Your task to perform on an android device: change the clock display to digital Image 0: 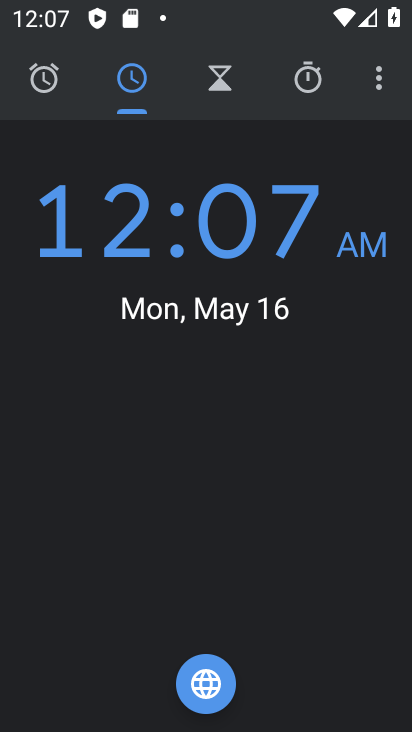
Step 0: click (376, 78)
Your task to perform on an android device: change the clock display to digital Image 1: 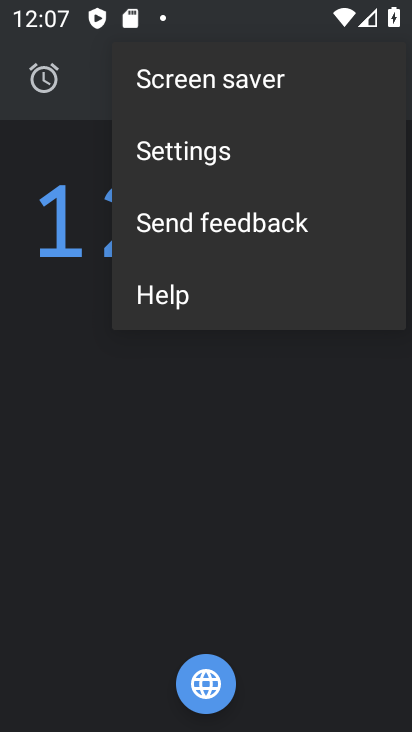
Step 1: click (253, 158)
Your task to perform on an android device: change the clock display to digital Image 2: 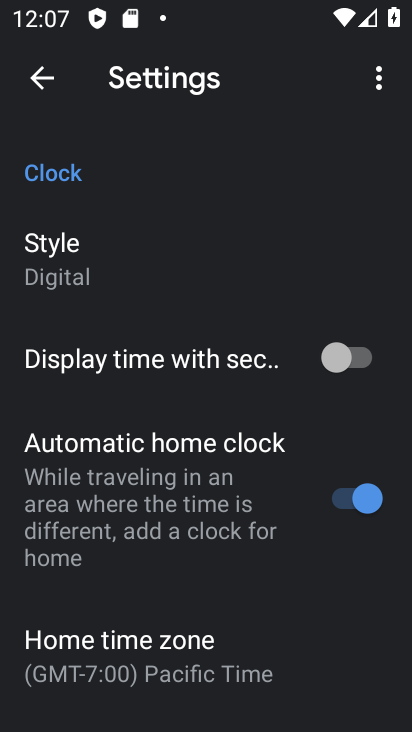
Step 2: task complete